Your task to perform on an android device: Open ESPN.com Image 0: 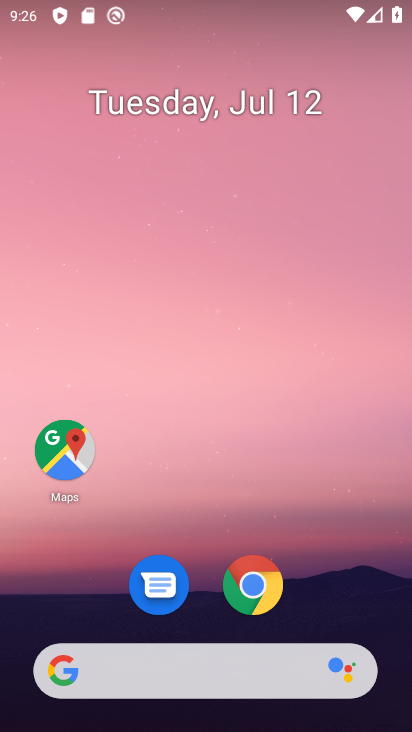
Step 0: click (252, 590)
Your task to perform on an android device: Open ESPN.com Image 1: 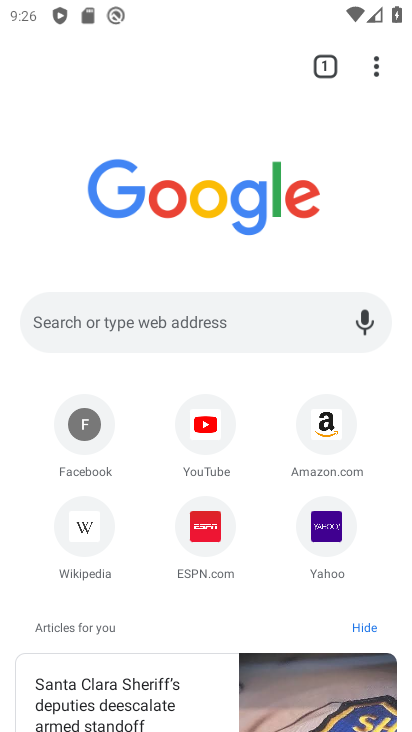
Step 1: click (207, 532)
Your task to perform on an android device: Open ESPN.com Image 2: 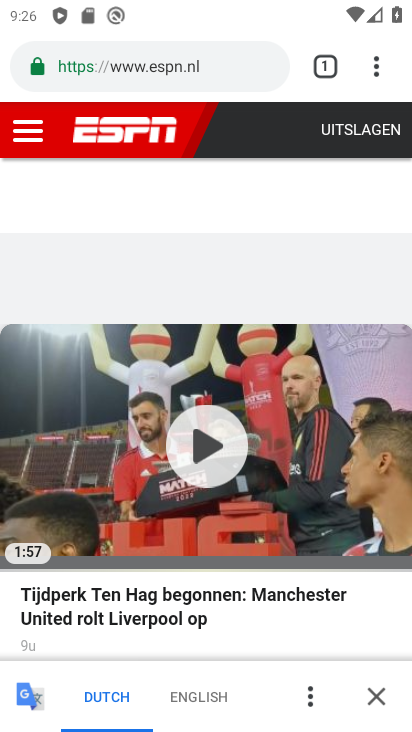
Step 2: click (199, 699)
Your task to perform on an android device: Open ESPN.com Image 3: 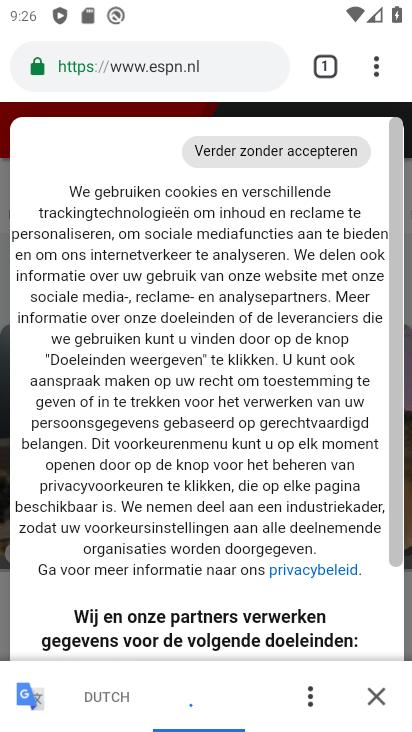
Step 3: drag from (270, 581) to (301, 88)
Your task to perform on an android device: Open ESPN.com Image 4: 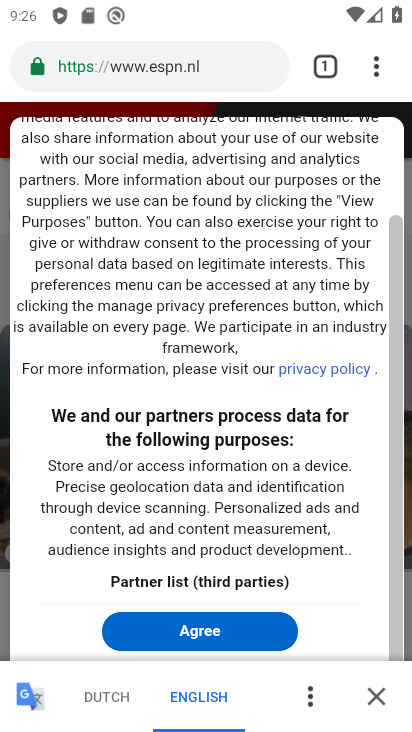
Step 4: click (202, 629)
Your task to perform on an android device: Open ESPN.com Image 5: 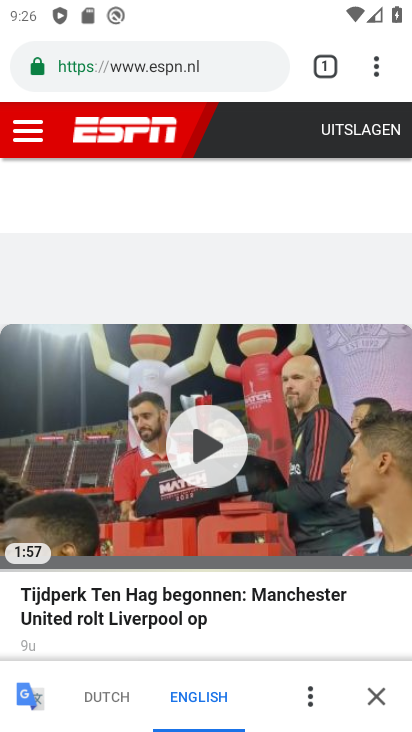
Step 5: task complete